Your task to perform on an android device: Open the stopwatch Image 0: 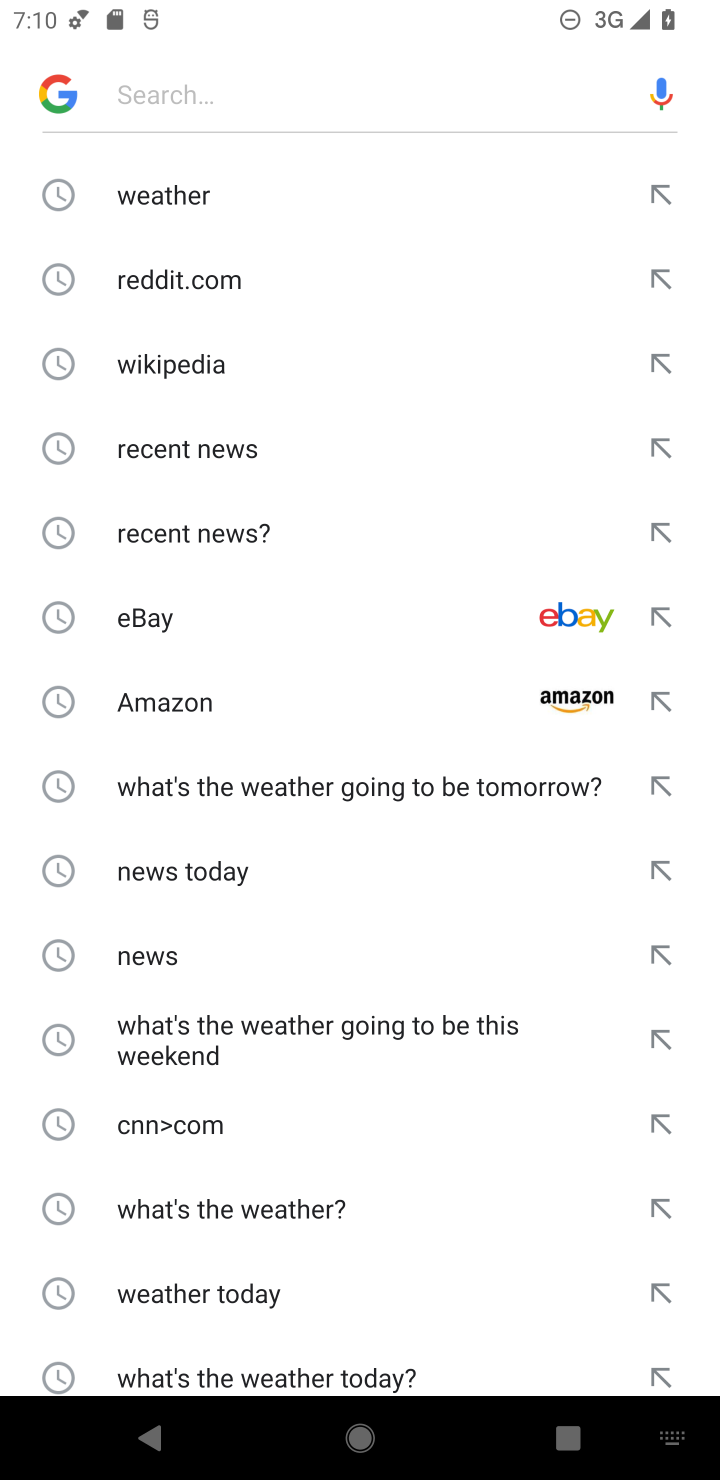
Step 0: press home button
Your task to perform on an android device: Open the stopwatch Image 1: 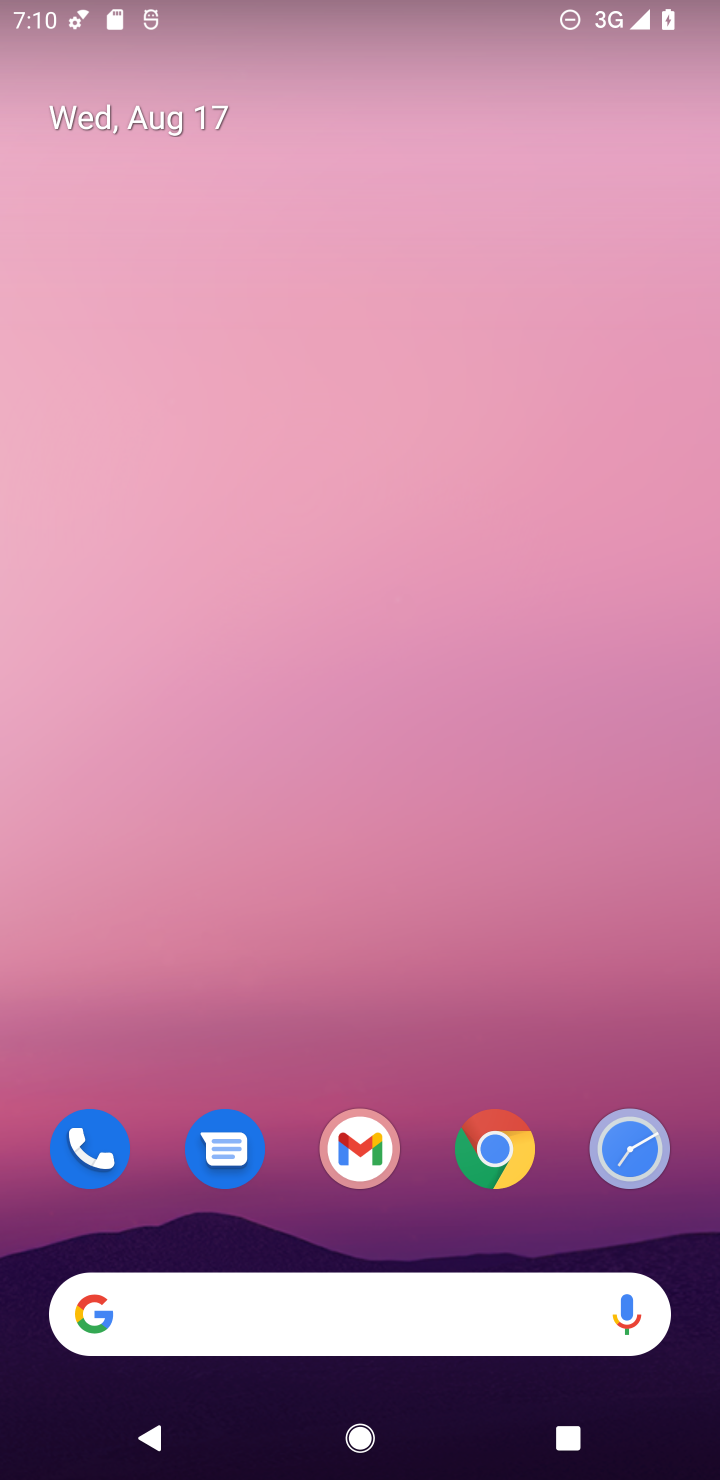
Step 1: drag from (417, 1227) to (532, 303)
Your task to perform on an android device: Open the stopwatch Image 2: 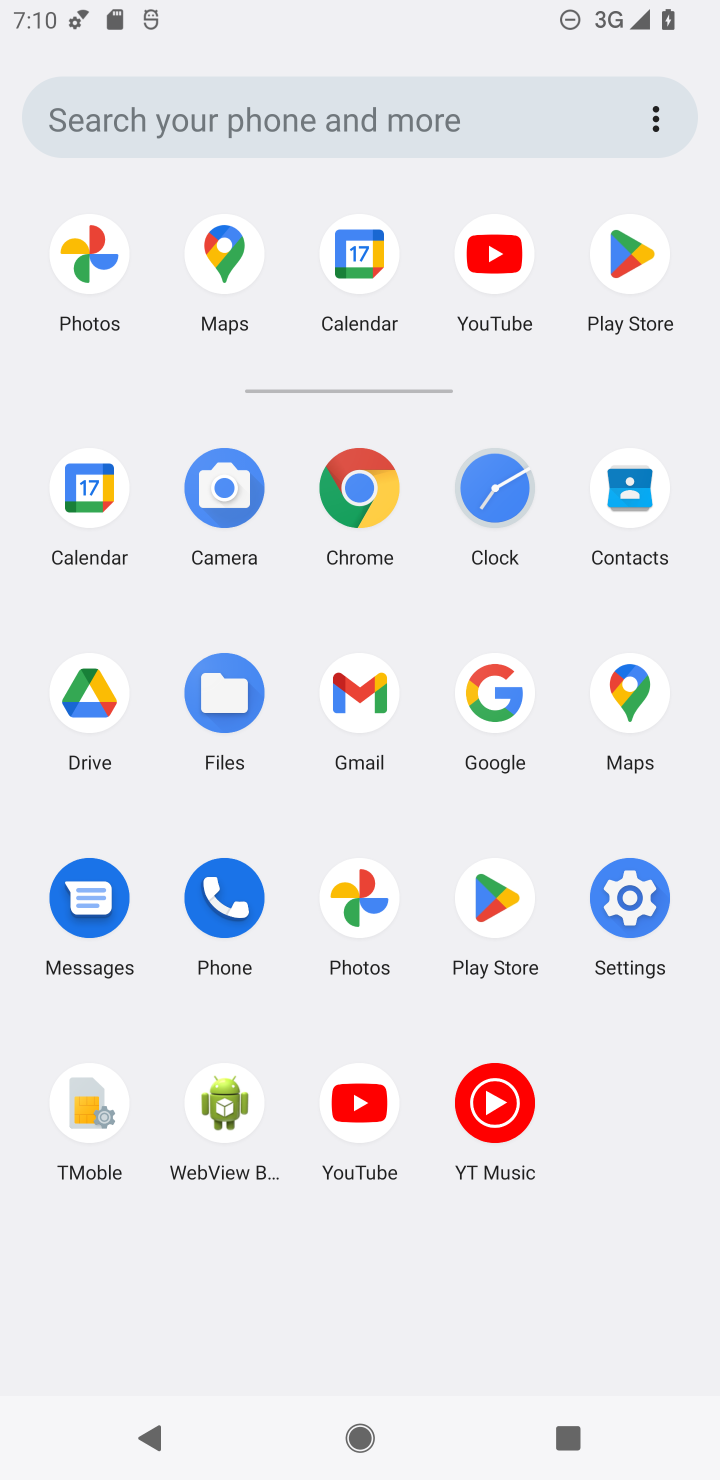
Step 2: click (482, 489)
Your task to perform on an android device: Open the stopwatch Image 3: 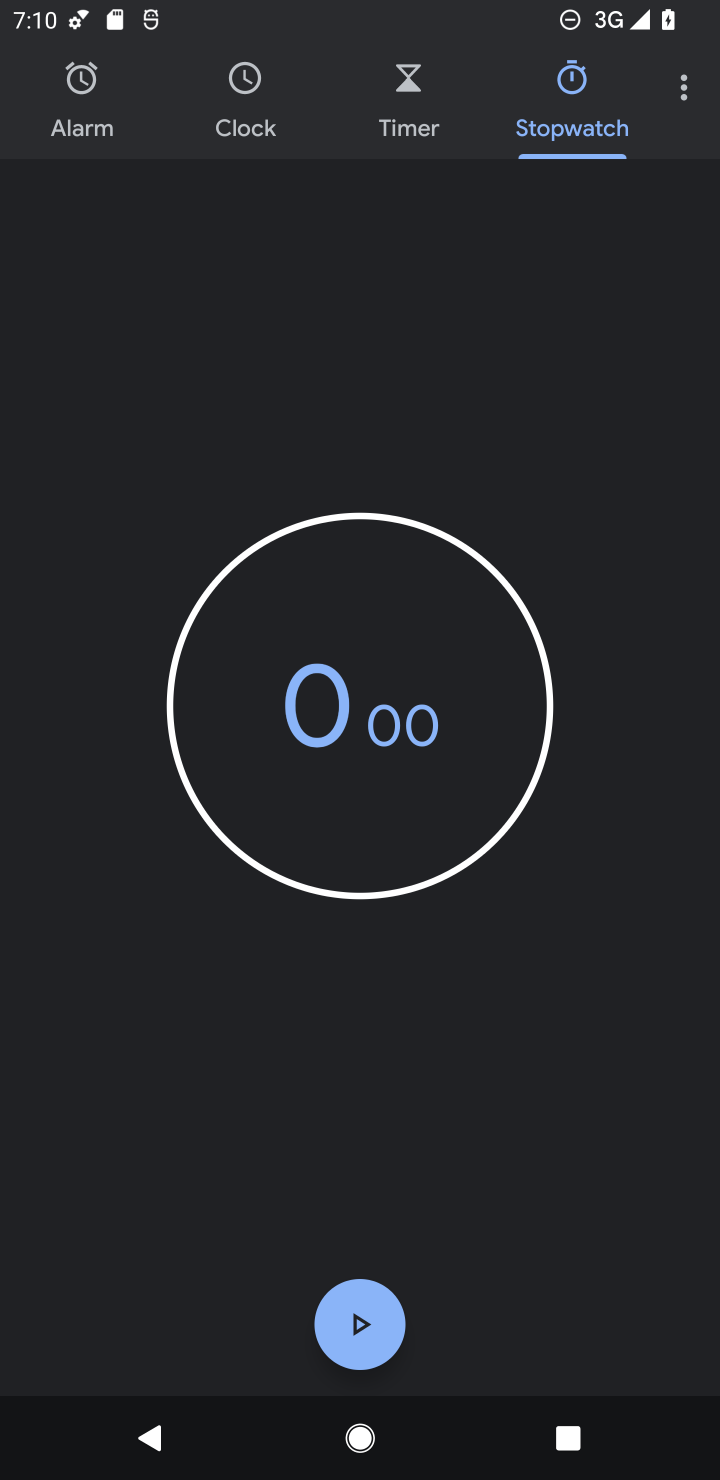
Step 3: task complete